Your task to perform on an android device: Add "dell xps" to the cart on costco Image 0: 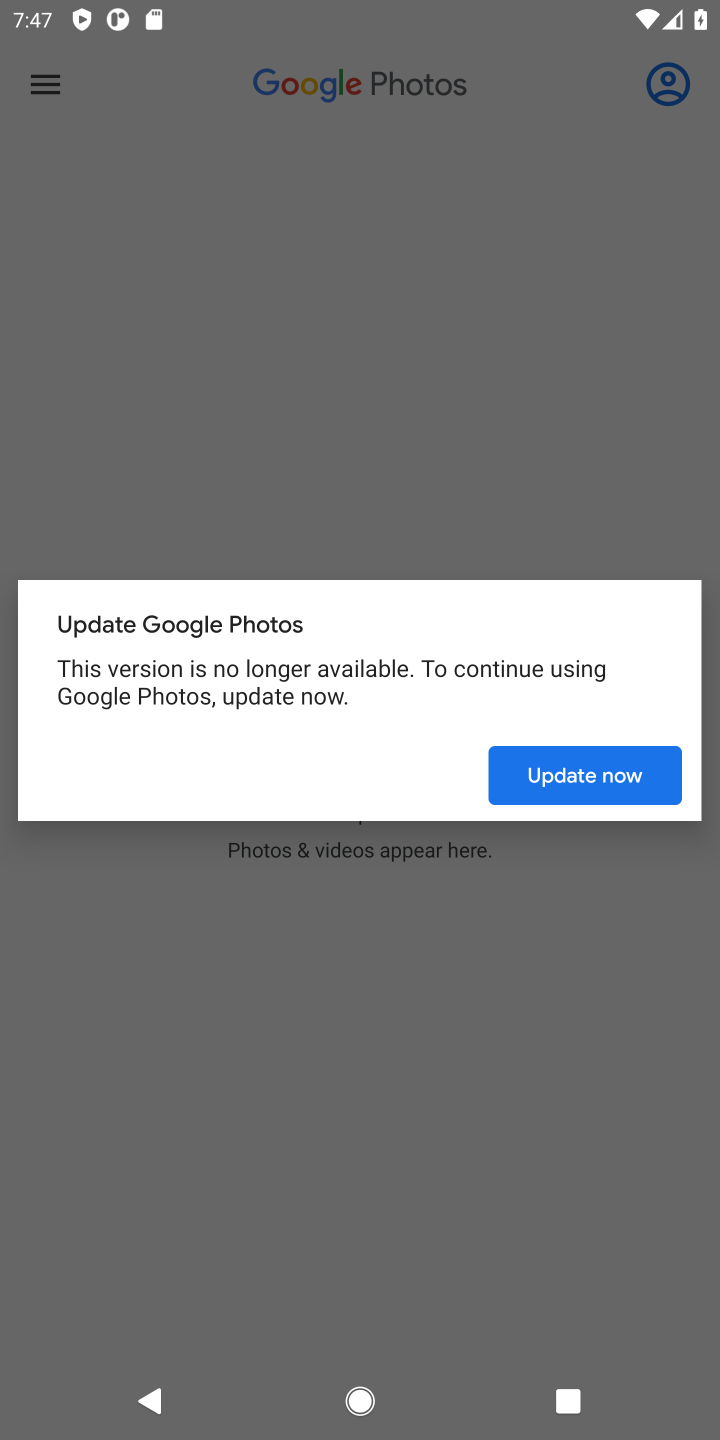
Step 0: press home button
Your task to perform on an android device: Add "dell xps" to the cart on costco Image 1: 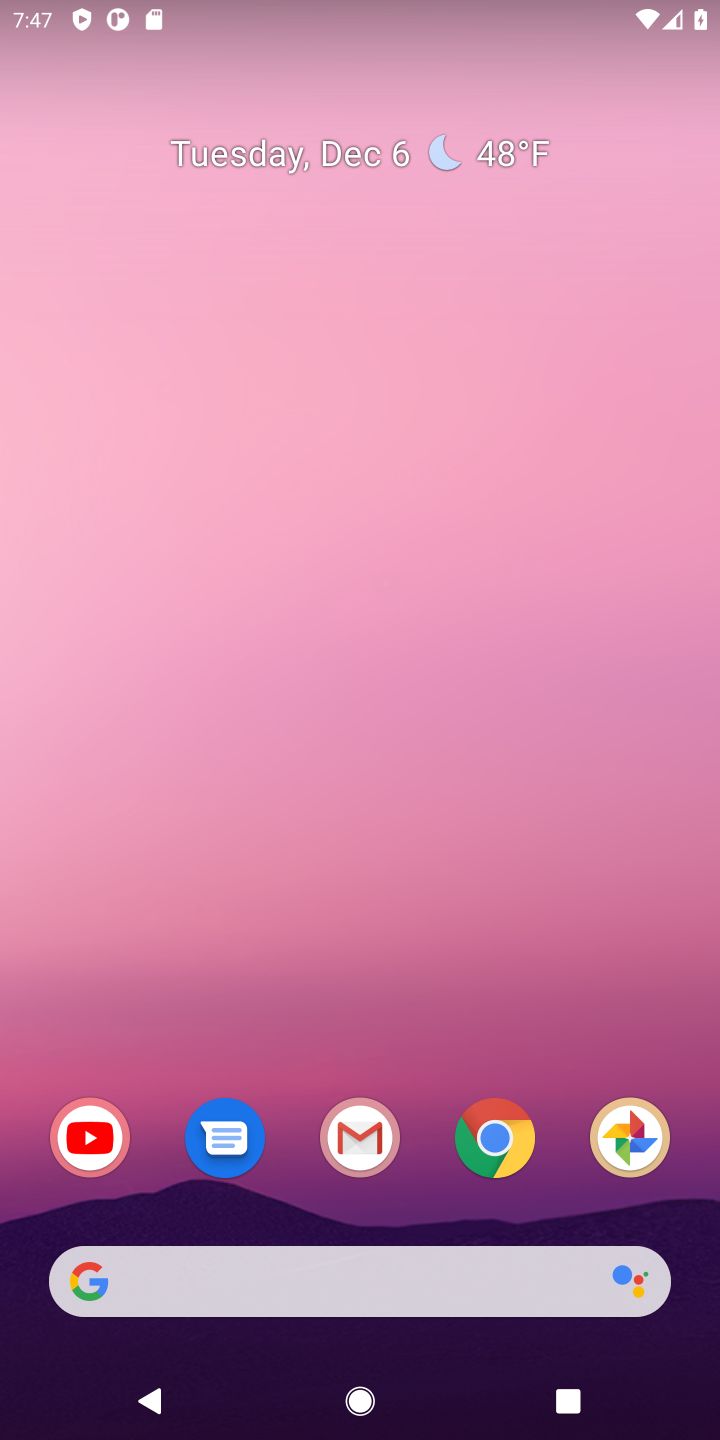
Step 1: click (505, 1146)
Your task to perform on an android device: Add "dell xps" to the cart on costco Image 2: 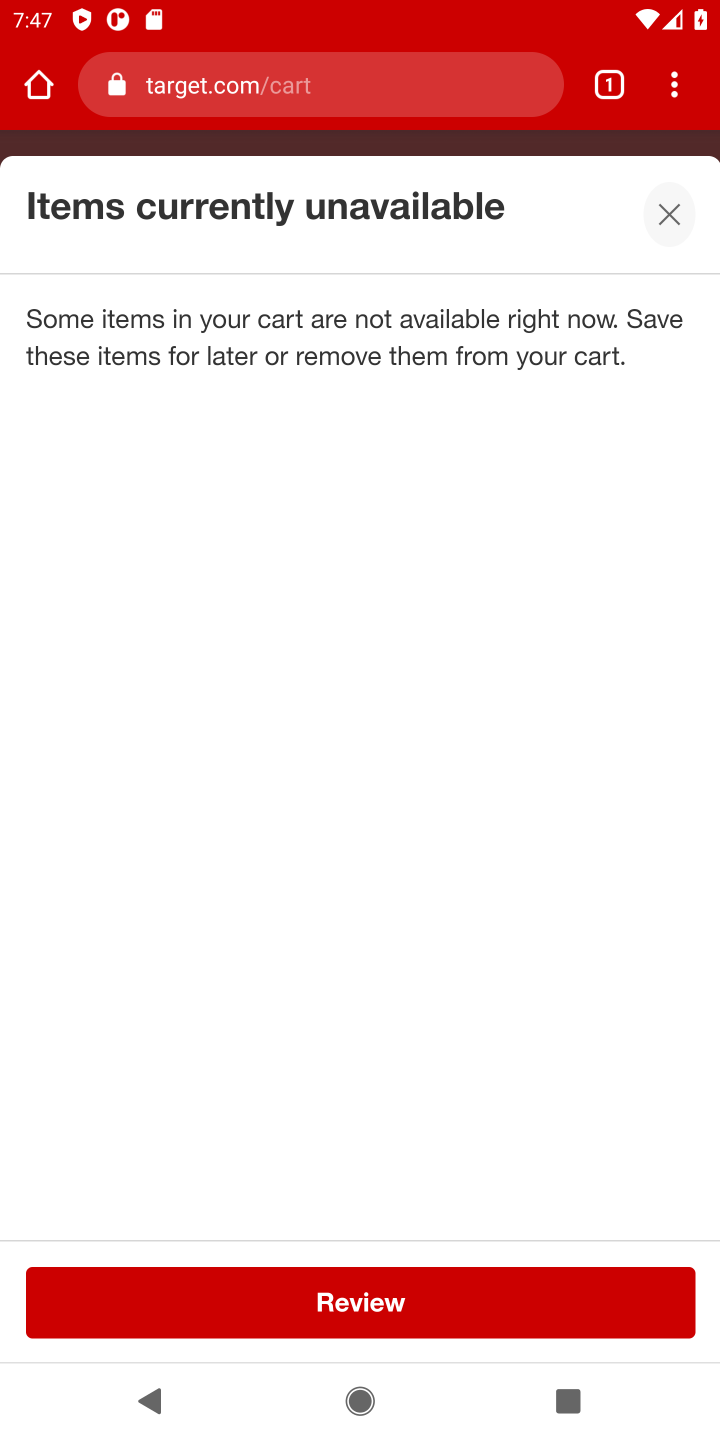
Step 2: click (284, 99)
Your task to perform on an android device: Add "dell xps" to the cart on costco Image 3: 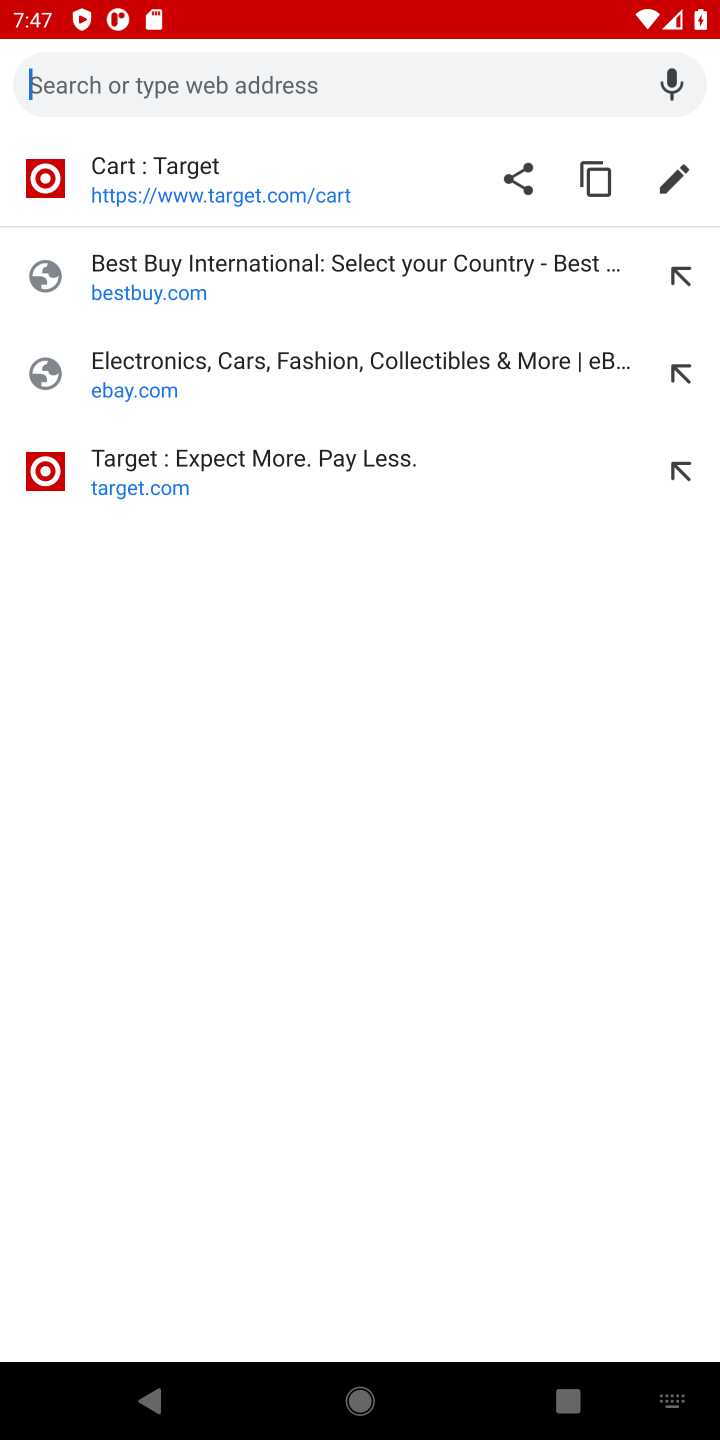
Step 3: type "costco.com"
Your task to perform on an android device: Add "dell xps" to the cart on costco Image 4: 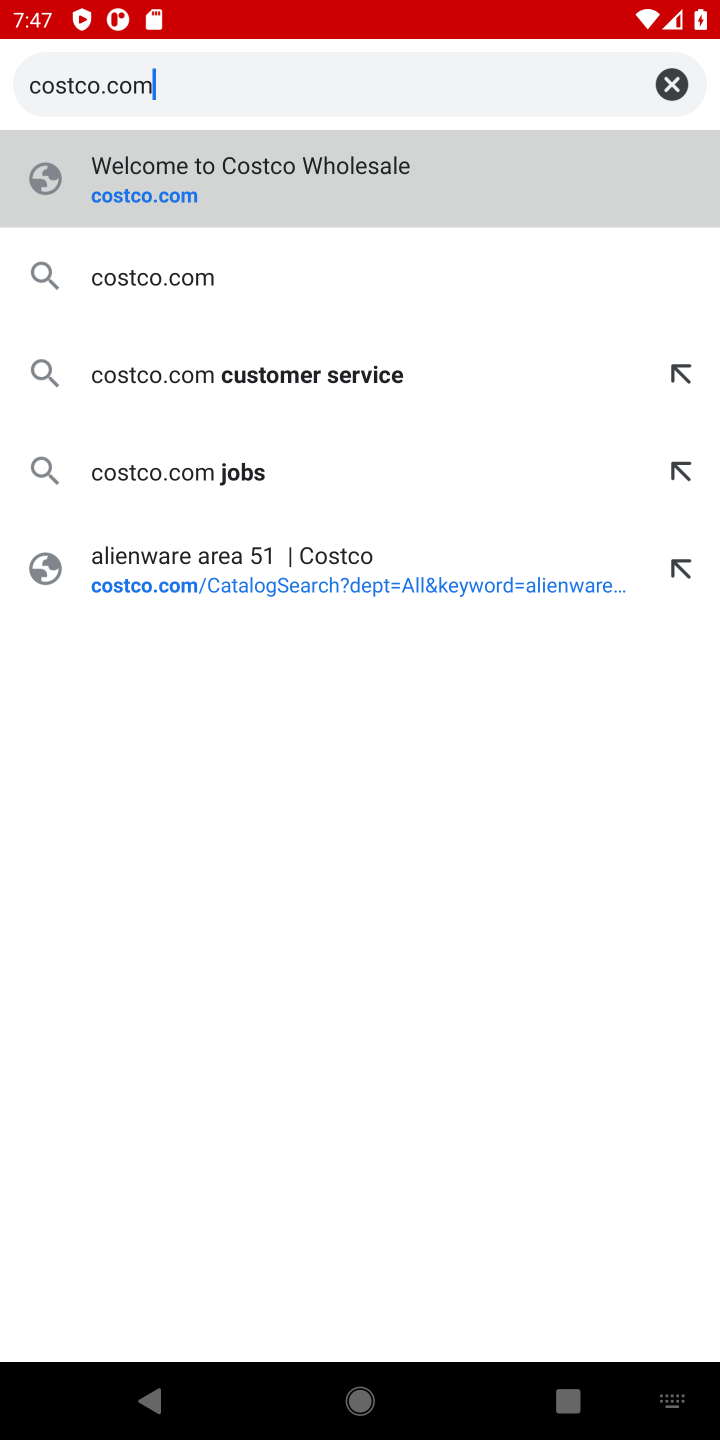
Step 4: click (120, 208)
Your task to perform on an android device: Add "dell xps" to the cart on costco Image 5: 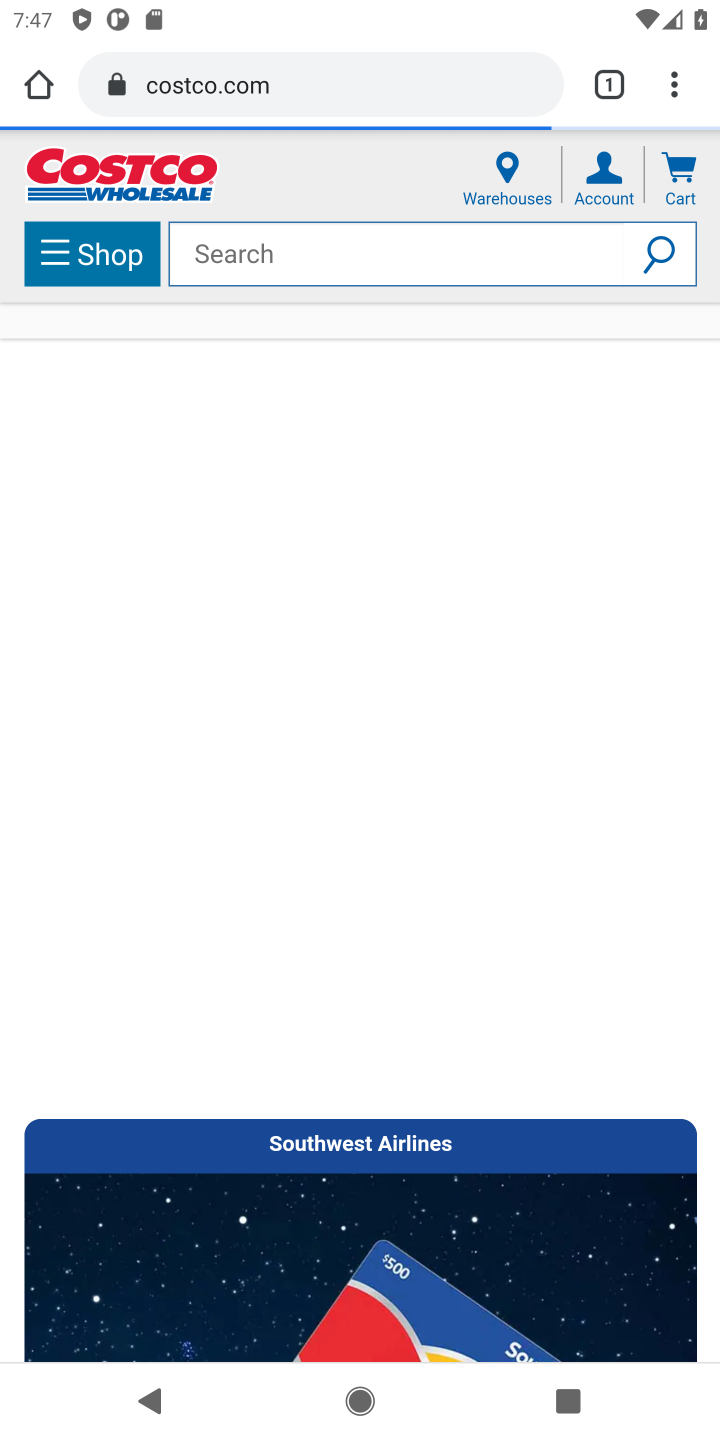
Step 5: click (205, 265)
Your task to perform on an android device: Add "dell xps" to the cart on costco Image 6: 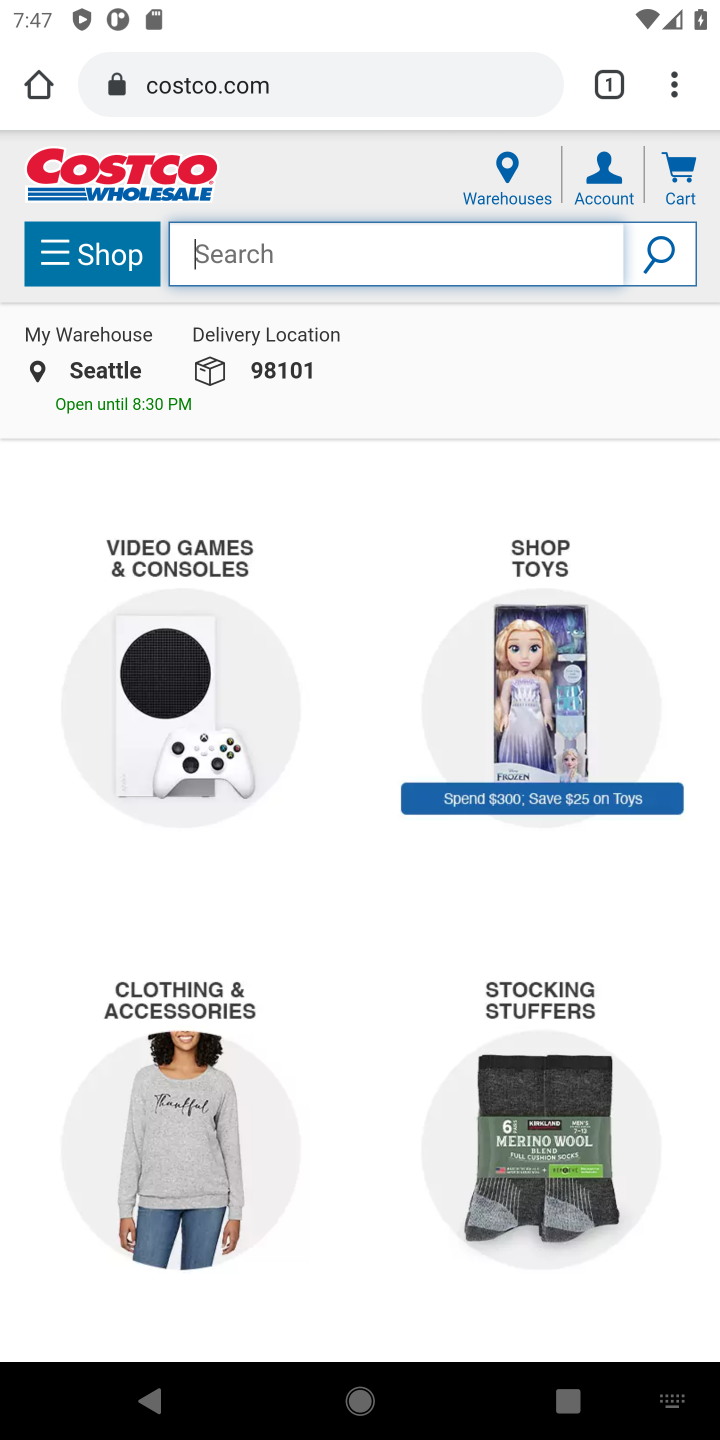
Step 6: type "dell xps "
Your task to perform on an android device: Add "dell xps" to the cart on costco Image 7: 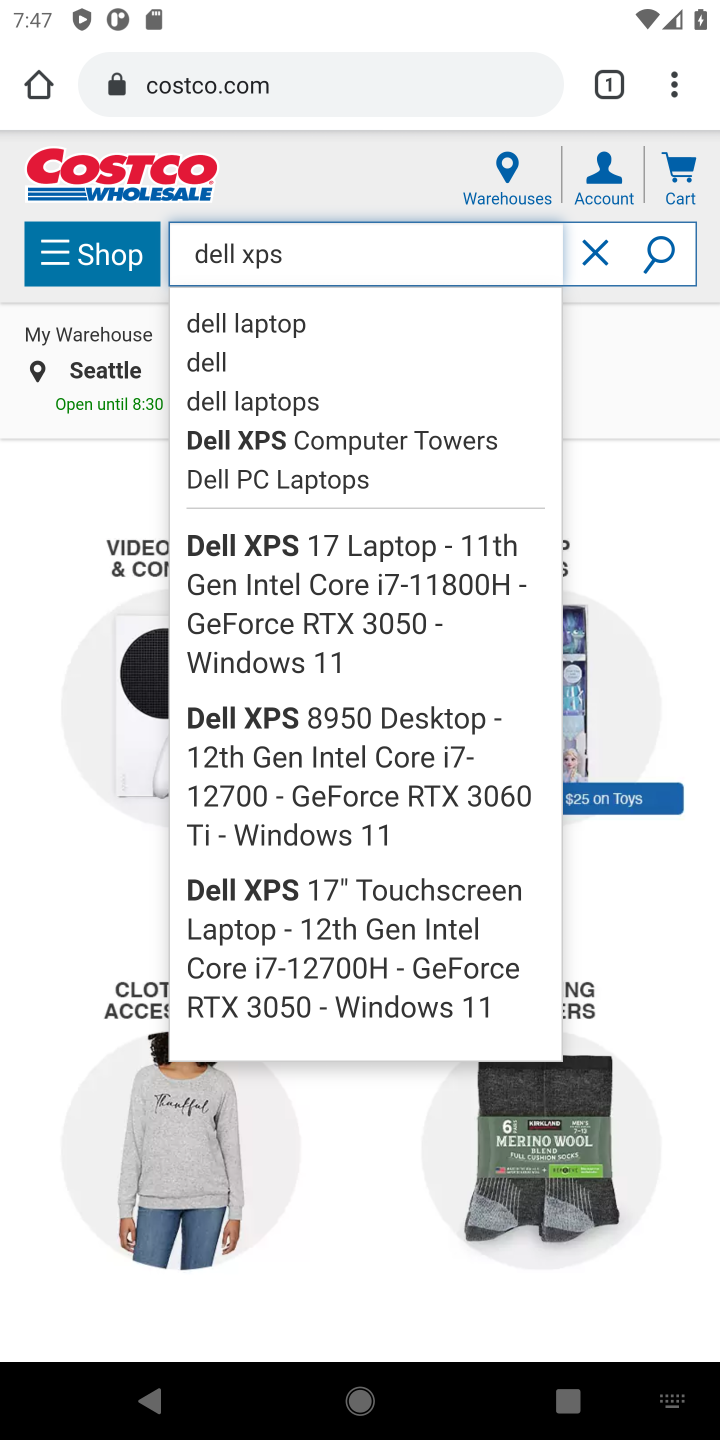
Step 7: click (658, 261)
Your task to perform on an android device: Add "dell xps" to the cart on costco Image 8: 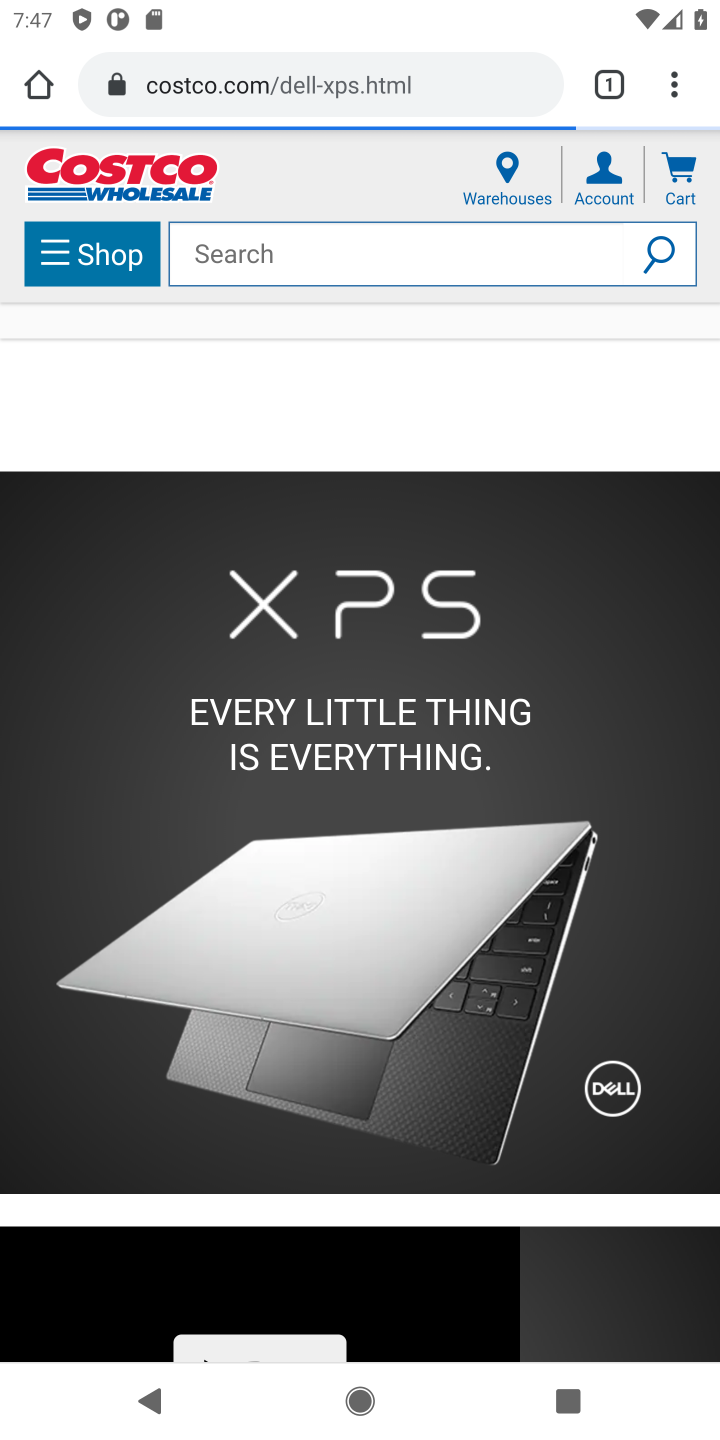
Step 8: task complete